Your task to perform on an android device: delete the emails in spam in the gmail app Image 0: 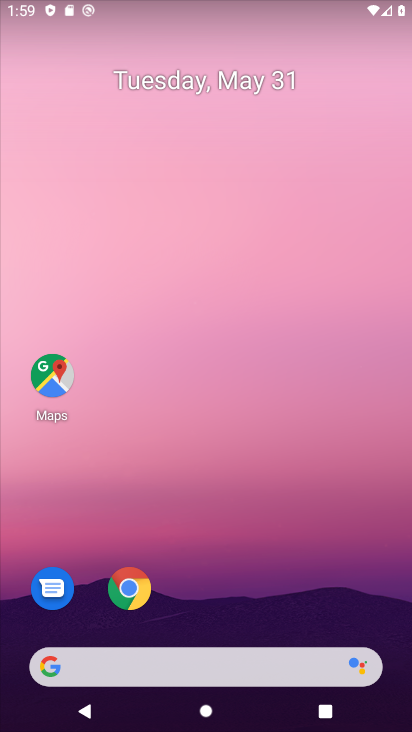
Step 0: drag from (127, 724) to (71, 50)
Your task to perform on an android device: delete the emails in spam in the gmail app Image 1: 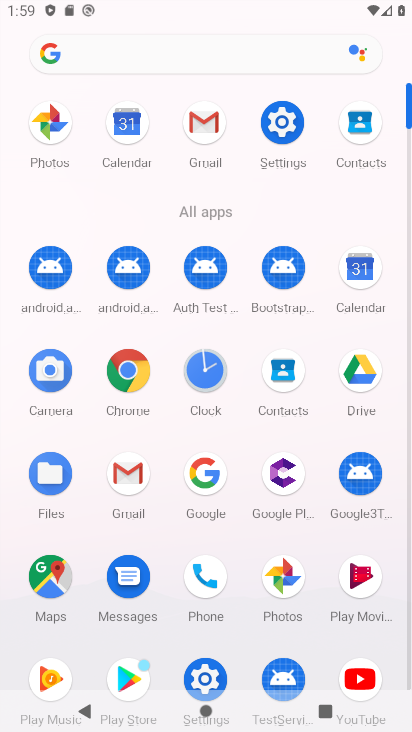
Step 1: click (122, 471)
Your task to perform on an android device: delete the emails in spam in the gmail app Image 2: 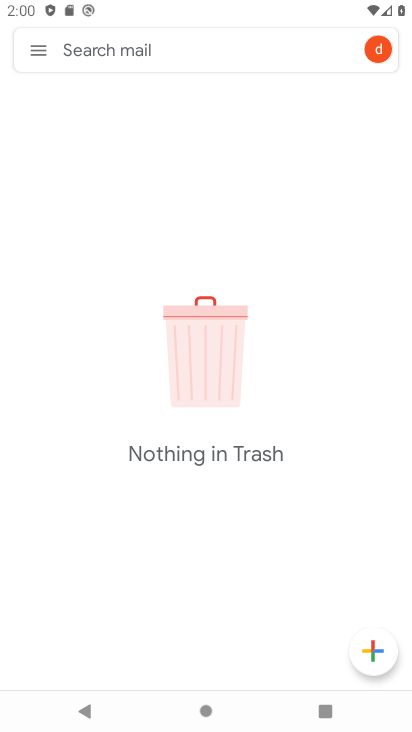
Step 2: click (42, 55)
Your task to perform on an android device: delete the emails in spam in the gmail app Image 3: 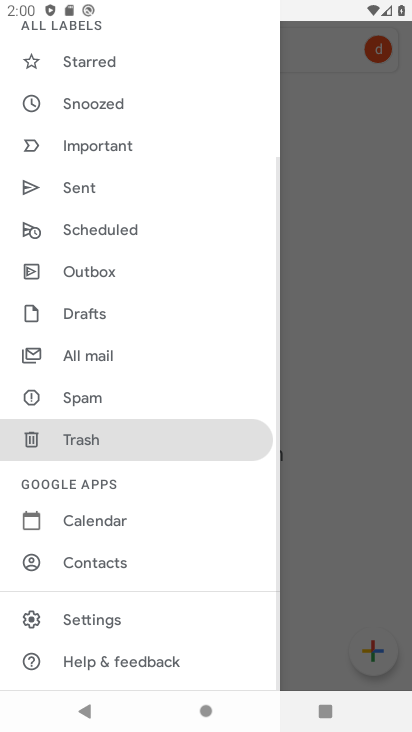
Step 3: click (83, 385)
Your task to perform on an android device: delete the emails in spam in the gmail app Image 4: 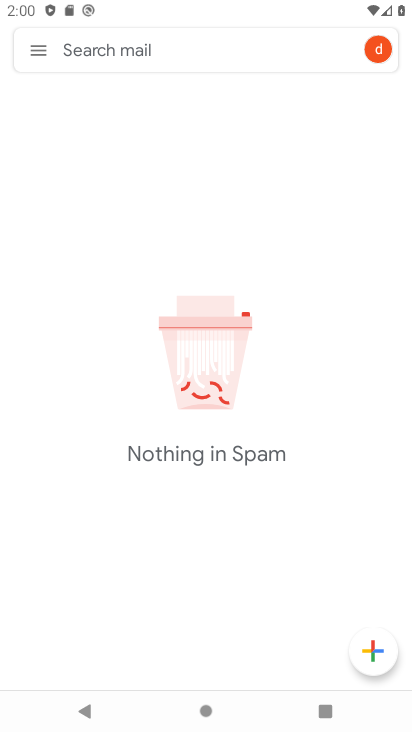
Step 4: task complete